Your task to perform on an android device: find which apps use the phone's location Image 0: 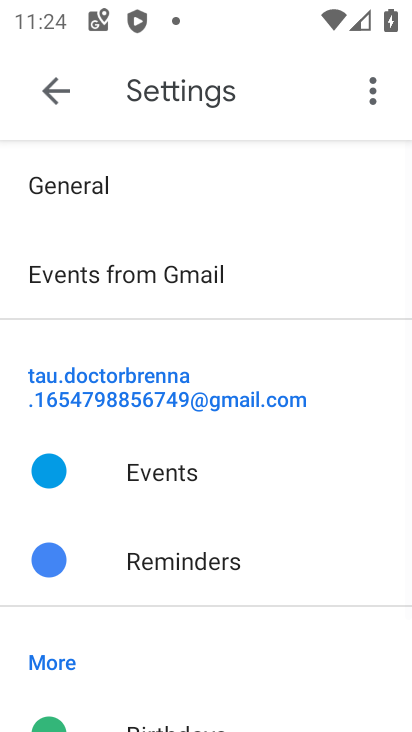
Step 0: press back button
Your task to perform on an android device: find which apps use the phone's location Image 1: 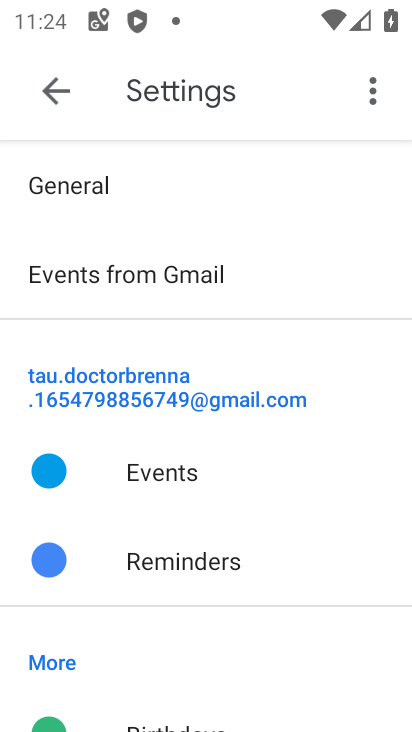
Step 1: press back button
Your task to perform on an android device: find which apps use the phone's location Image 2: 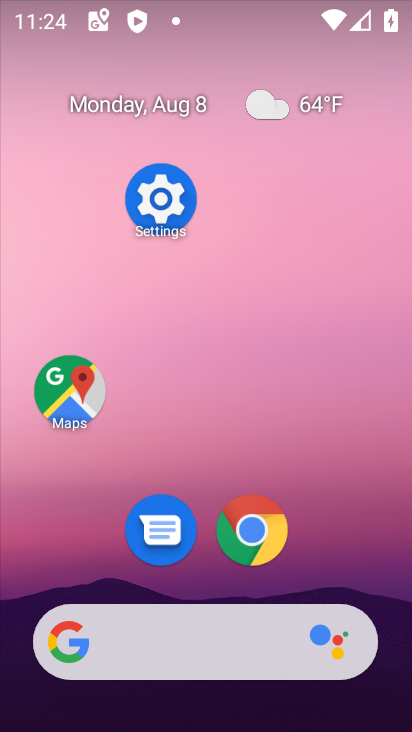
Step 2: drag from (171, 610) to (132, 145)
Your task to perform on an android device: find which apps use the phone's location Image 3: 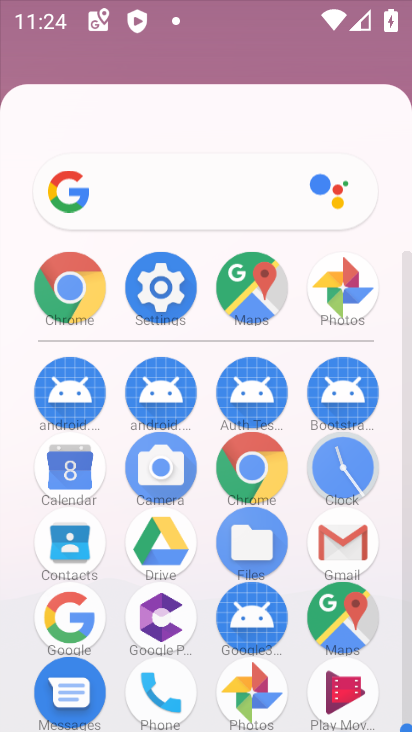
Step 3: drag from (226, 530) to (215, 114)
Your task to perform on an android device: find which apps use the phone's location Image 4: 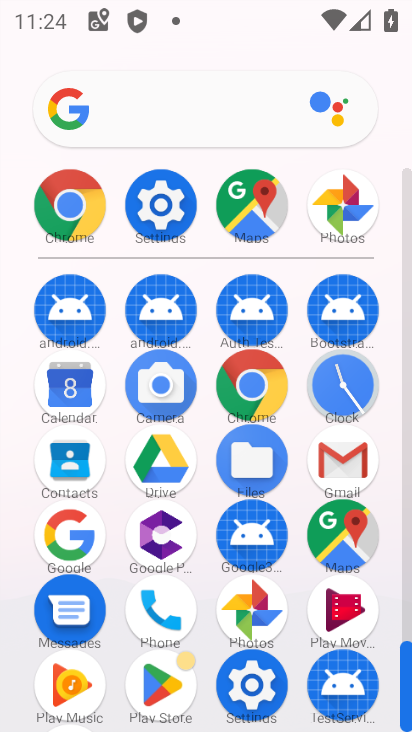
Step 4: drag from (243, 446) to (237, 26)
Your task to perform on an android device: find which apps use the phone's location Image 5: 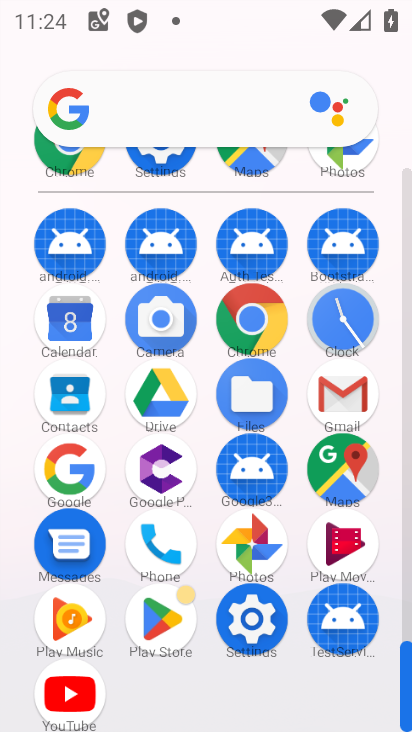
Step 5: click (246, 622)
Your task to perform on an android device: find which apps use the phone's location Image 6: 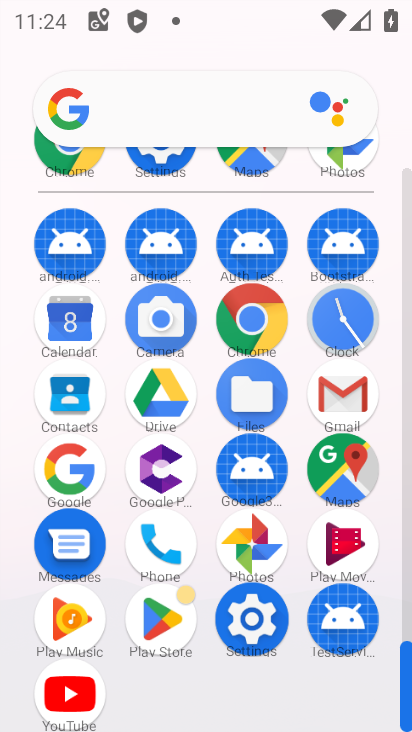
Step 6: click (246, 622)
Your task to perform on an android device: find which apps use the phone's location Image 7: 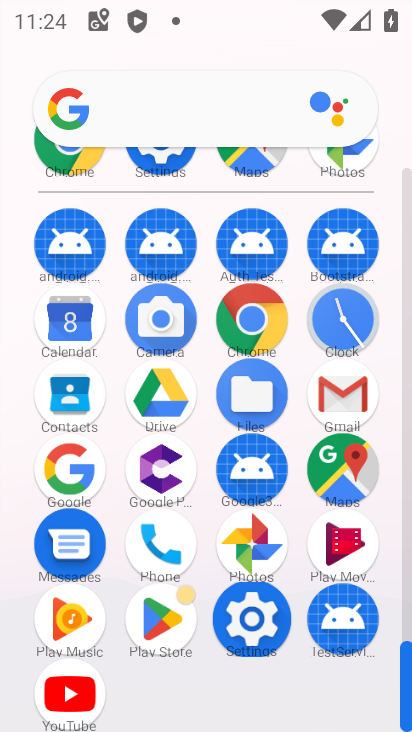
Step 7: click (249, 620)
Your task to perform on an android device: find which apps use the phone's location Image 8: 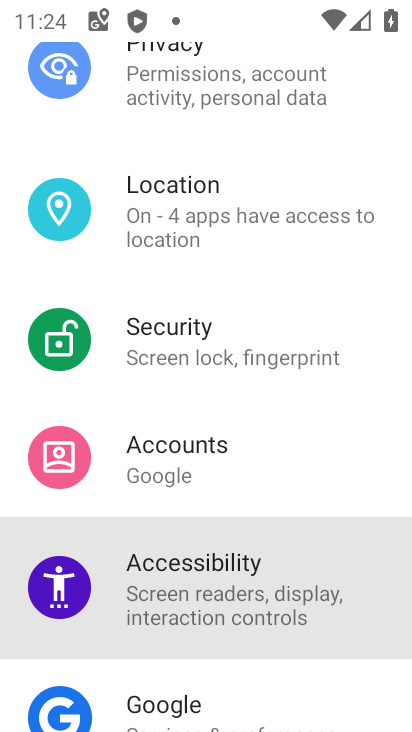
Step 8: drag from (252, 621) to (253, 579)
Your task to perform on an android device: find which apps use the phone's location Image 9: 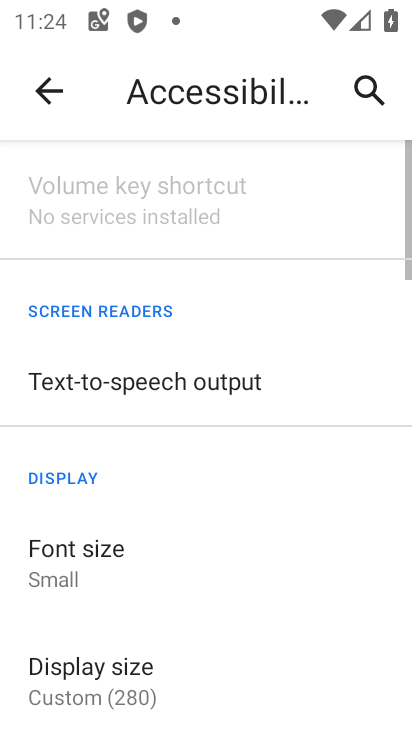
Step 9: click (48, 83)
Your task to perform on an android device: find which apps use the phone's location Image 10: 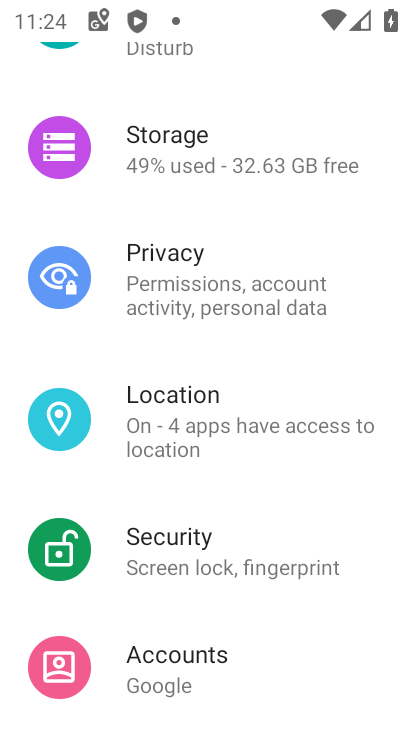
Step 10: click (163, 417)
Your task to perform on an android device: find which apps use the phone's location Image 11: 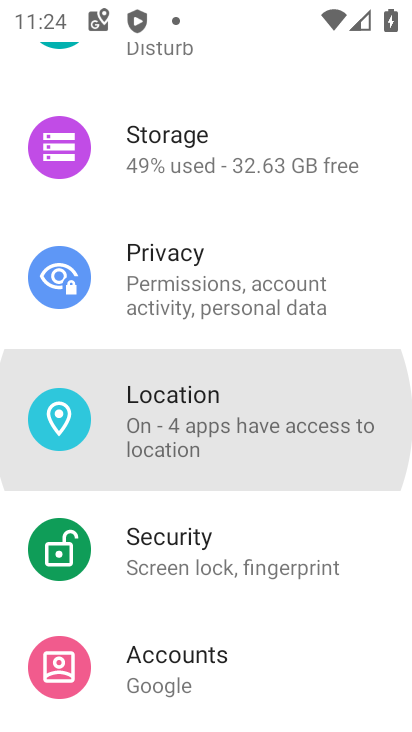
Step 11: click (165, 417)
Your task to perform on an android device: find which apps use the phone's location Image 12: 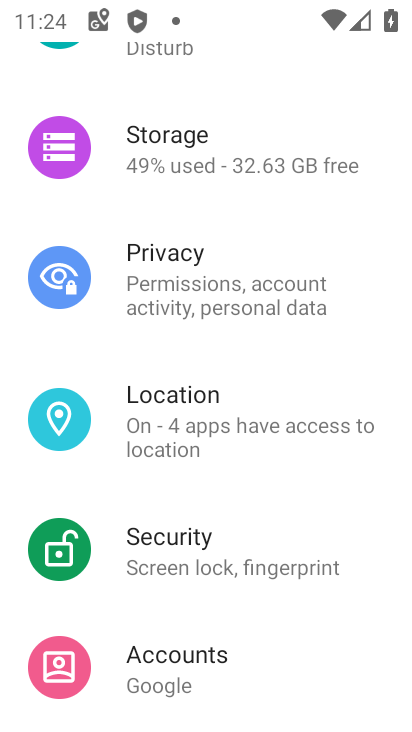
Step 12: click (166, 416)
Your task to perform on an android device: find which apps use the phone's location Image 13: 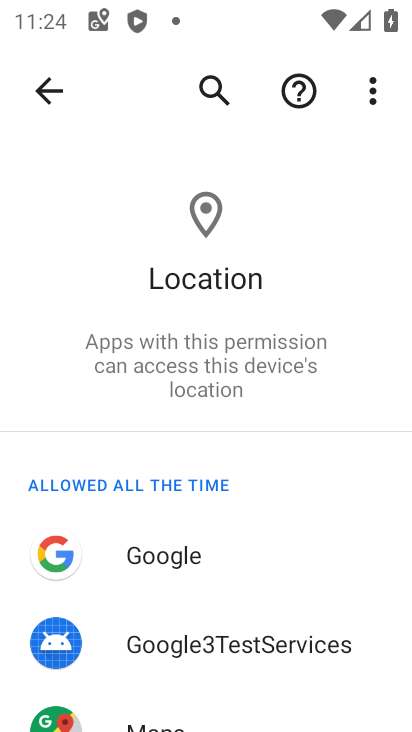
Step 13: click (44, 94)
Your task to perform on an android device: find which apps use the phone's location Image 14: 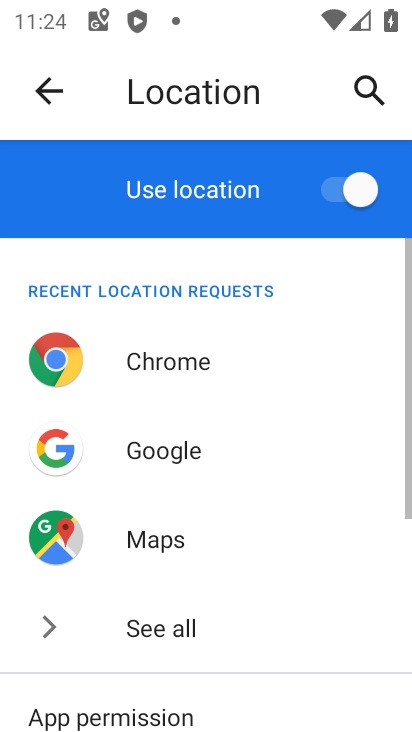
Step 14: drag from (239, 584) to (269, 283)
Your task to perform on an android device: find which apps use the phone's location Image 15: 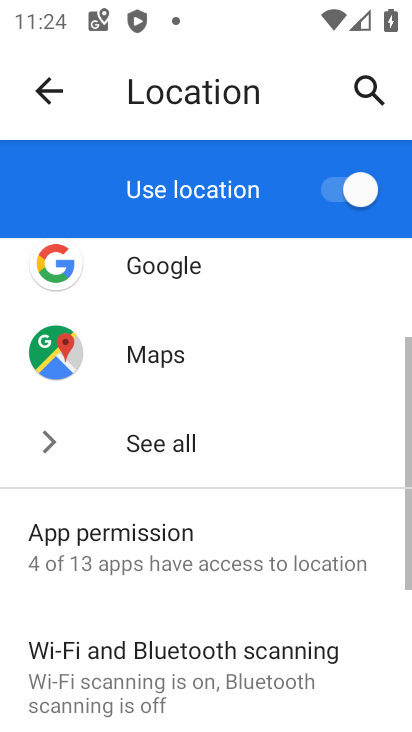
Step 15: drag from (281, 487) to (308, 303)
Your task to perform on an android device: find which apps use the phone's location Image 16: 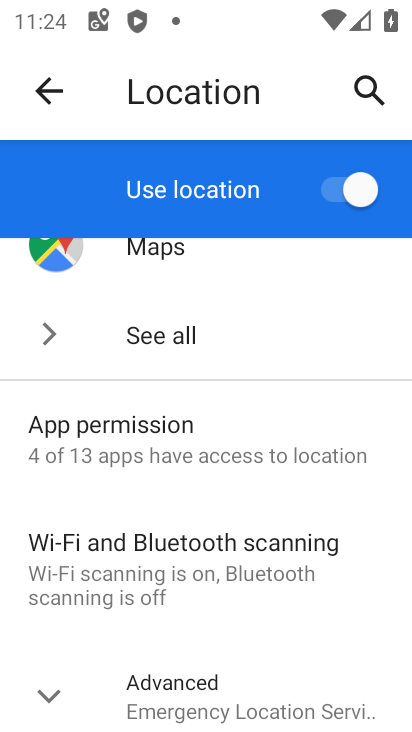
Step 16: click (102, 441)
Your task to perform on an android device: find which apps use the phone's location Image 17: 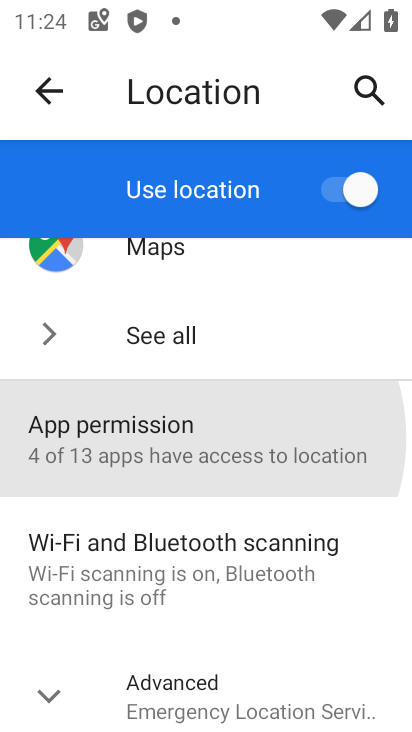
Step 17: click (108, 441)
Your task to perform on an android device: find which apps use the phone's location Image 18: 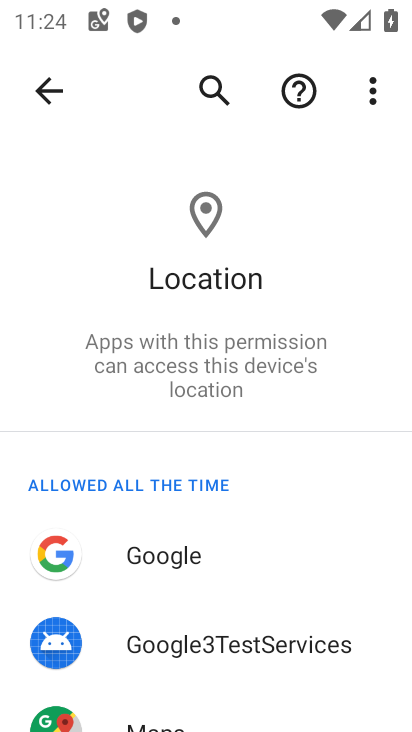
Step 18: task complete